Your task to perform on an android device: see tabs open on other devices in the chrome app Image 0: 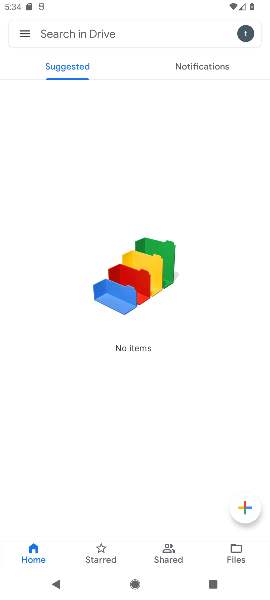
Step 0: press home button
Your task to perform on an android device: see tabs open on other devices in the chrome app Image 1: 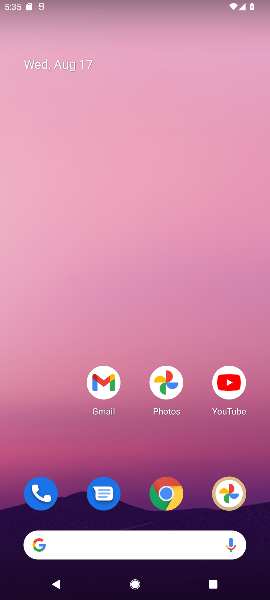
Step 1: click (176, 495)
Your task to perform on an android device: see tabs open on other devices in the chrome app Image 2: 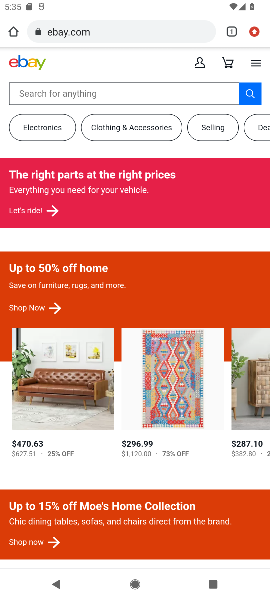
Step 2: task complete